Your task to perform on an android device: Go to Maps Image 0: 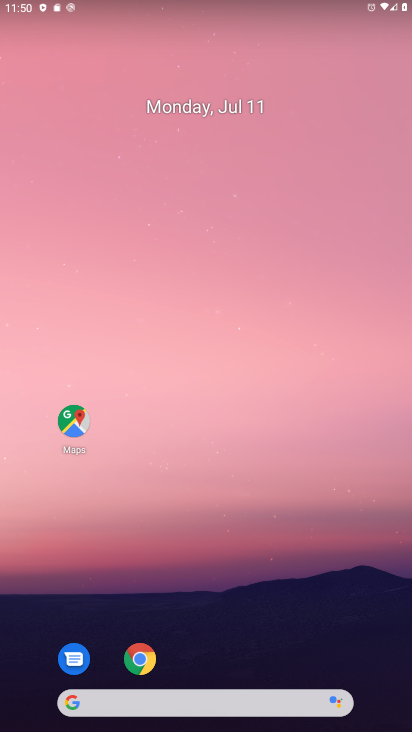
Step 0: drag from (189, 661) to (17, 13)
Your task to perform on an android device: Go to Maps Image 1: 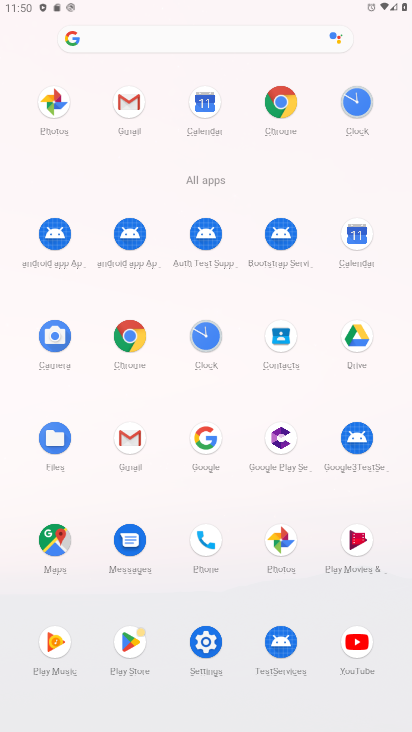
Step 1: click (56, 535)
Your task to perform on an android device: Go to Maps Image 2: 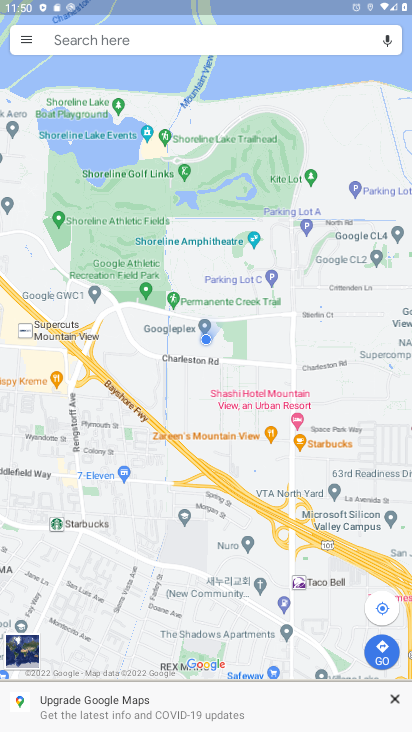
Step 2: task complete